Your task to perform on an android device: Set the phone to "Do not disturb". Image 0: 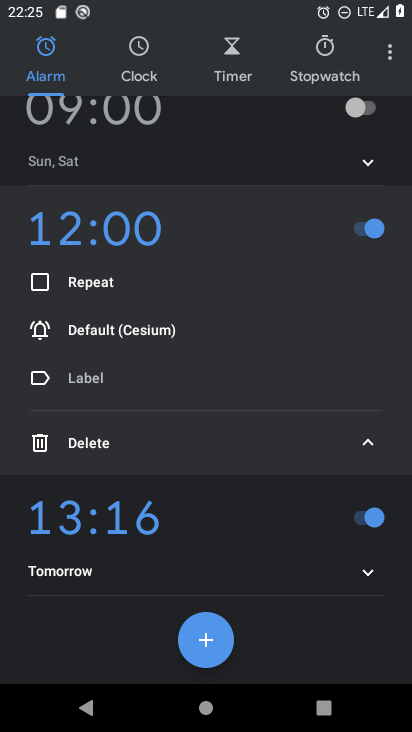
Step 0: press home button
Your task to perform on an android device: Set the phone to "Do not disturb". Image 1: 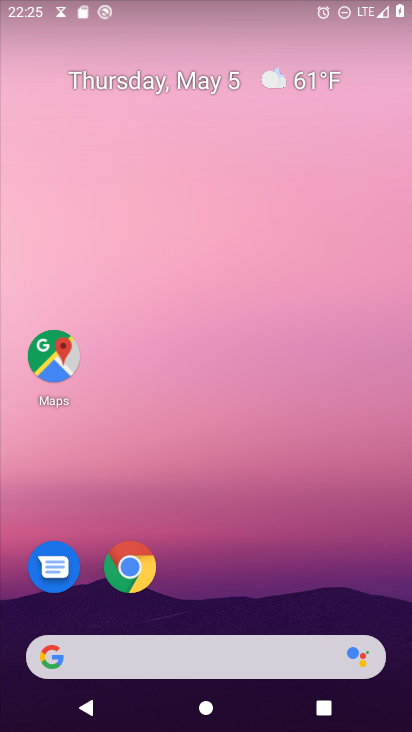
Step 1: drag from (219, 729) to (204, 230)
Your task to perform on an android device: Set the phone to "Do not disturb". Image 2: 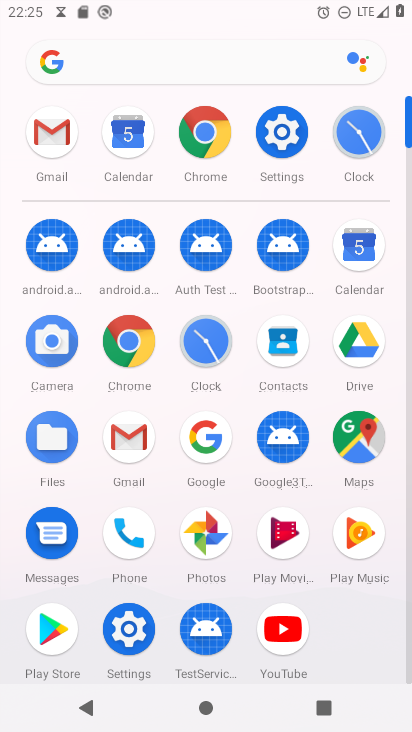
Step 2: click (280, 124)
Your task to perform on an android device: Set the phone to "Do not disturb". Image 3: 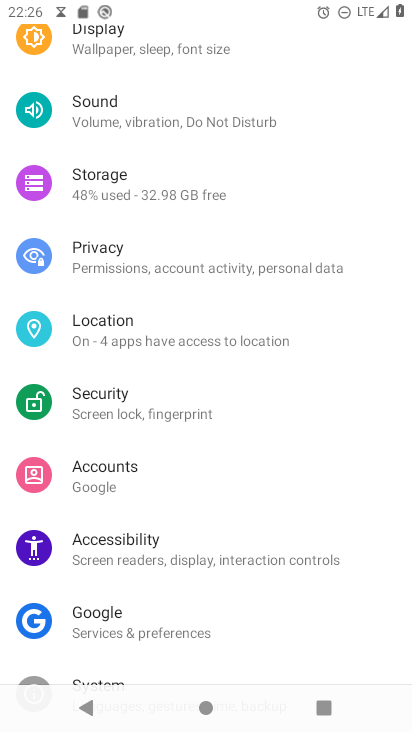
Step 3: click (189, 120)
Your task to perform on an android device: Set the phone to "Do not disturb". Image 4: 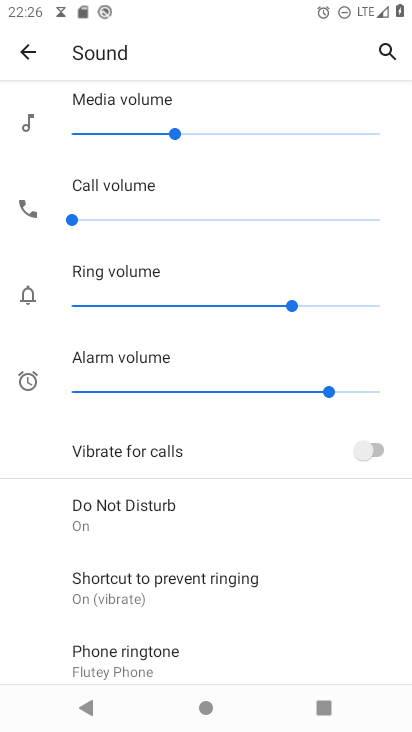
Step 4: click (77, 512)
Your task to perform on an android device: Set the phone to "Do not disturb". Image 5: 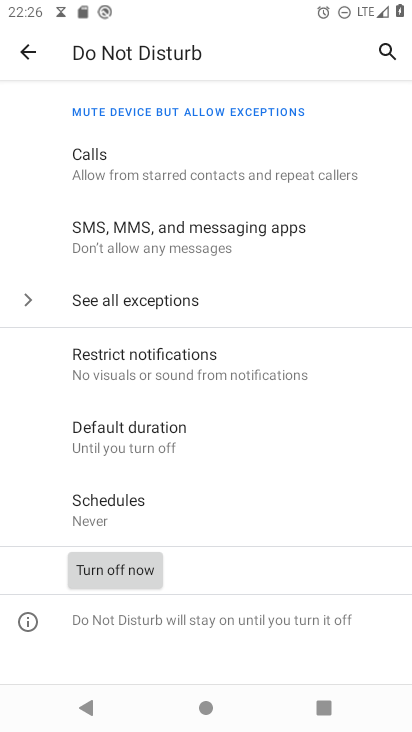
Step 5: task complete